Your task to perform on an android device: Show the shopping cart on amazon. Image 0: 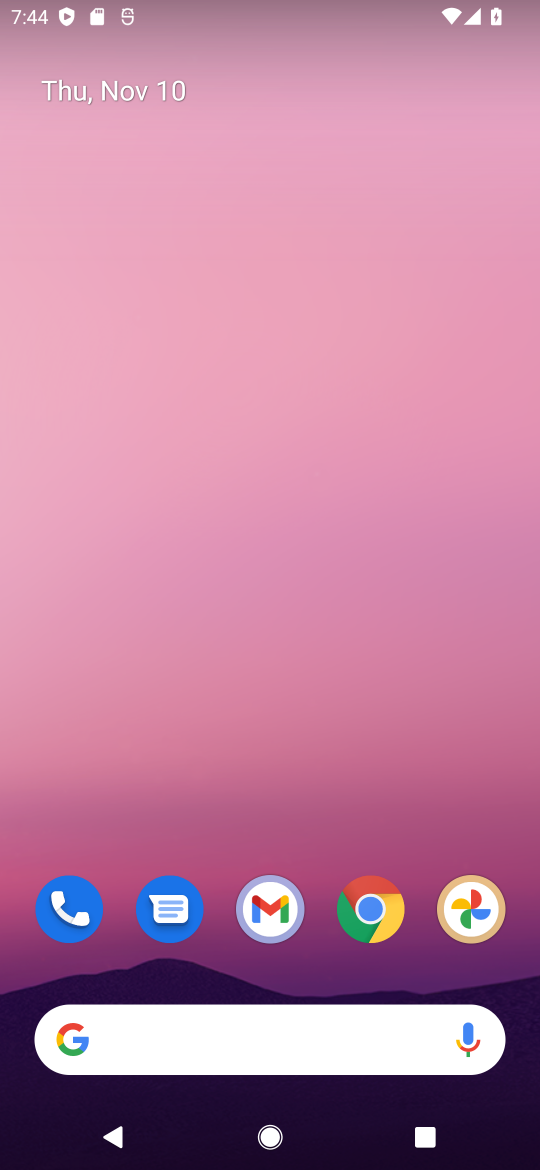
Step 0: drag from (149, 1011) to (251, 280)
Your task to perform on an android device: Show the shopping cart on amazon. Image 1: 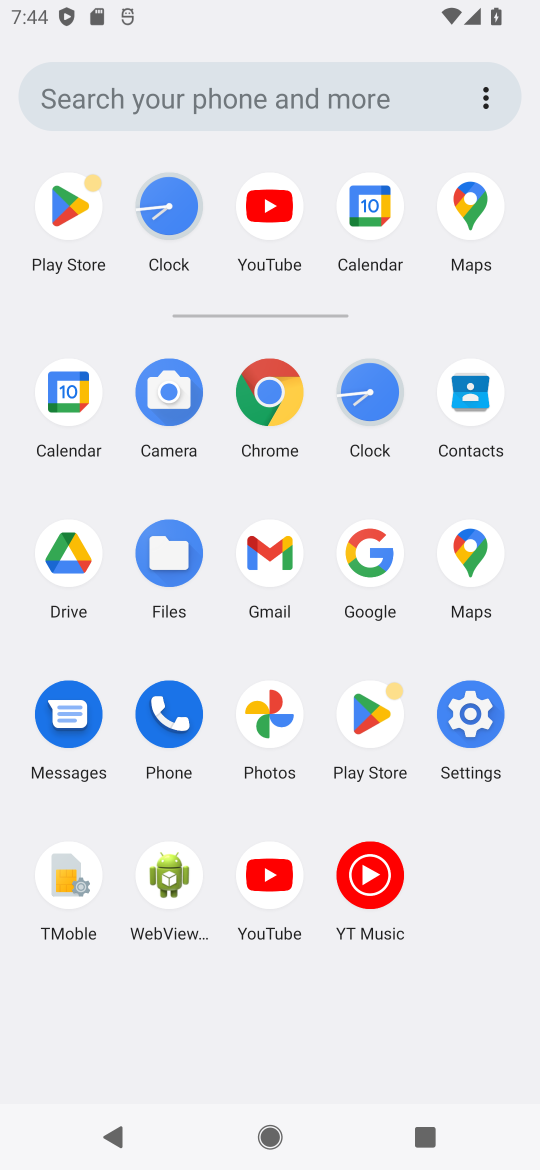
Step 1: click (366, 553)
Your task to perform on an android device: Show the shopping cart on amazon. Image 2: 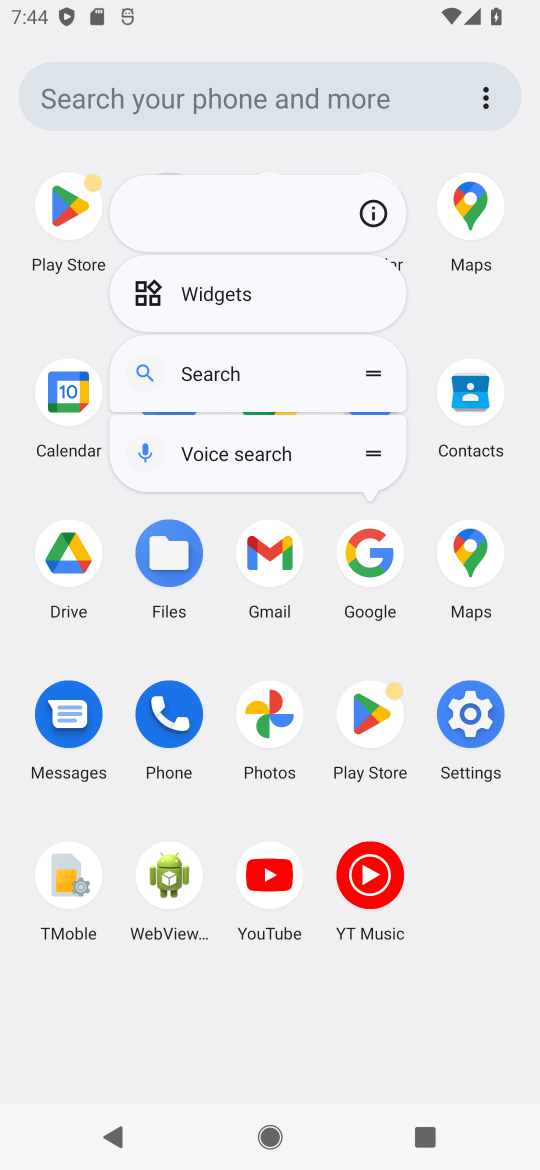
Step 2: click (366, 553)
Your task to perform on an android device: Show the shopping cart on amazon. Image 3: 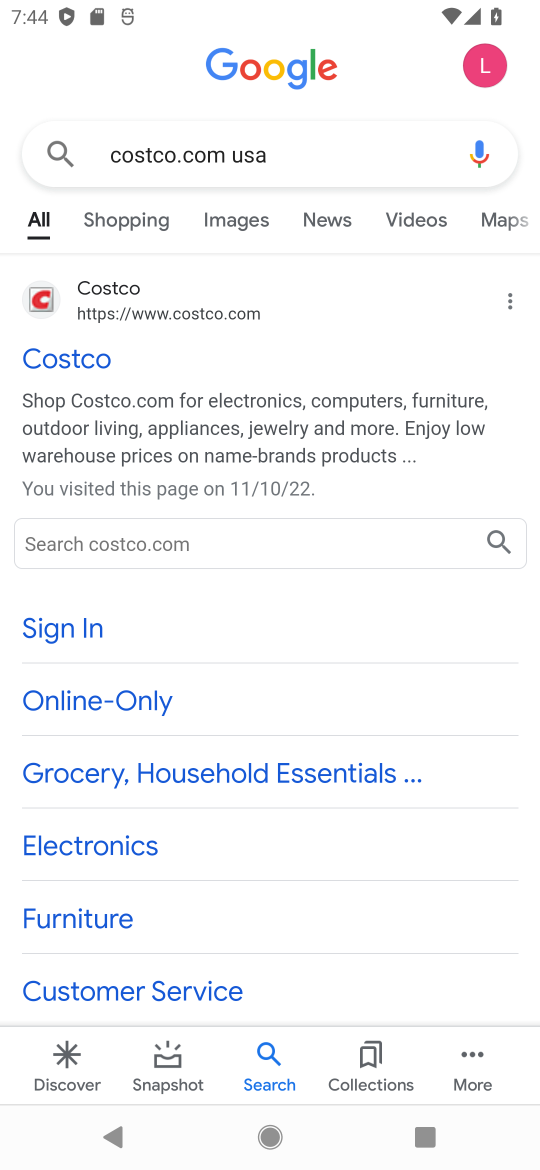
Step 3: click (284, 158)
Your task to perform on an android device: Show the shopping cart on amazon. Image 4: 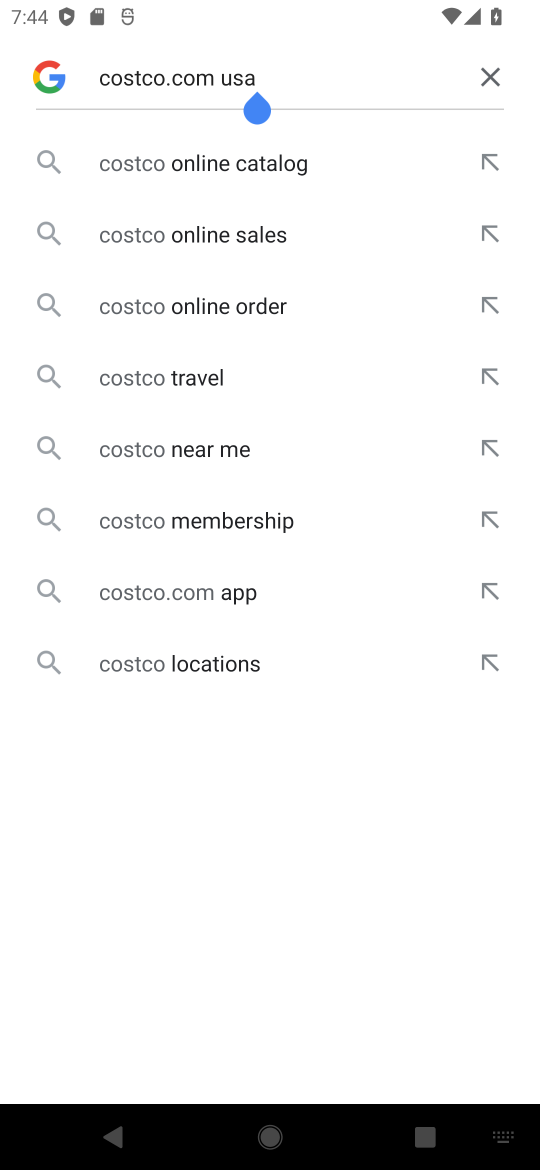
Step 4: click (477, 70)
Your task to perform on an android device: Show the shopping cart on amazon. Image 5: 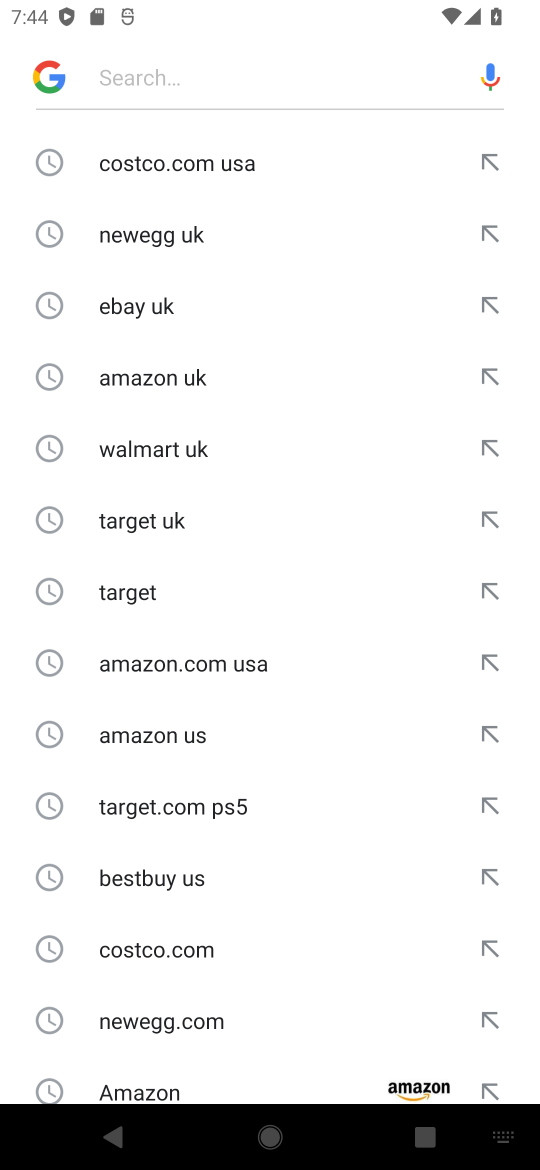
Step 5: click (160, 40)
Your task to perform on an android device: Show the shopping cart on amazon. Image 6: 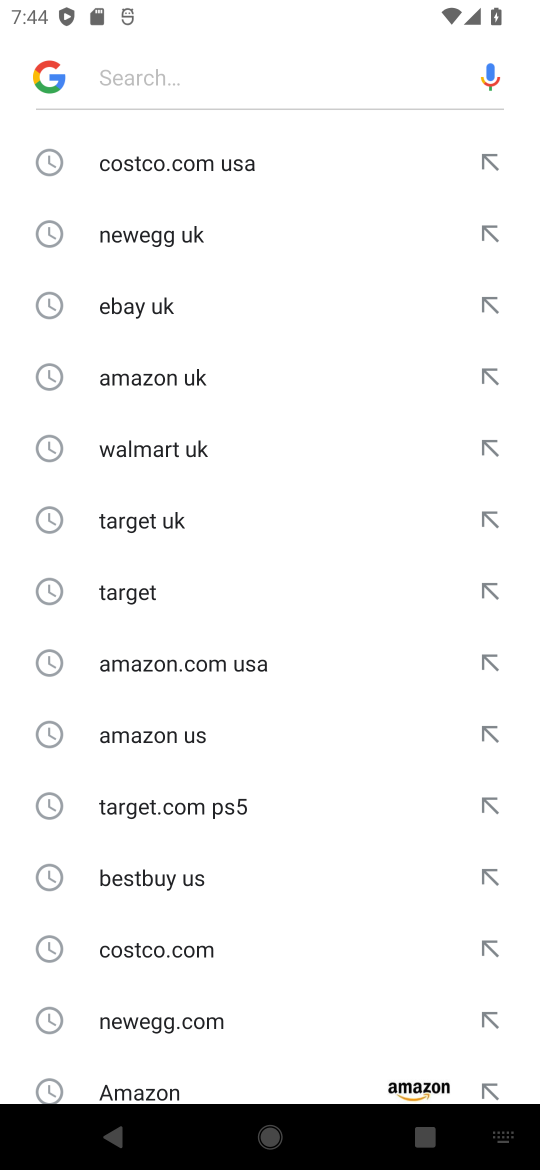
Step 6: click (176, 66)
Your task to perform on an android device: Show the shopping cart on amazon. Image 7: 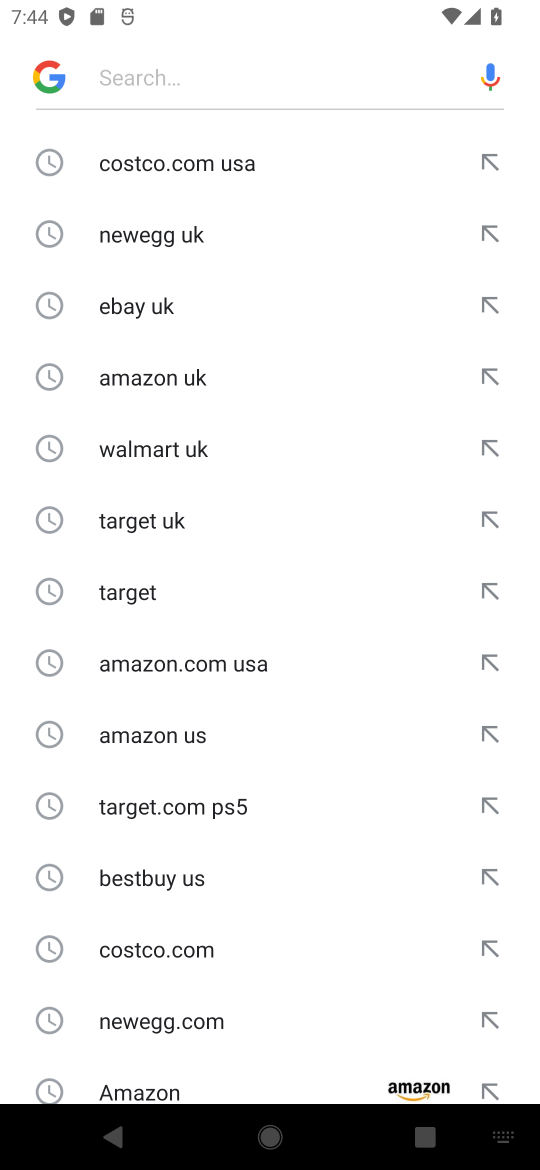
Step 7: type "amazon "
Your task to perform on an android device: Show the shopping cart on amazon. Image 8: 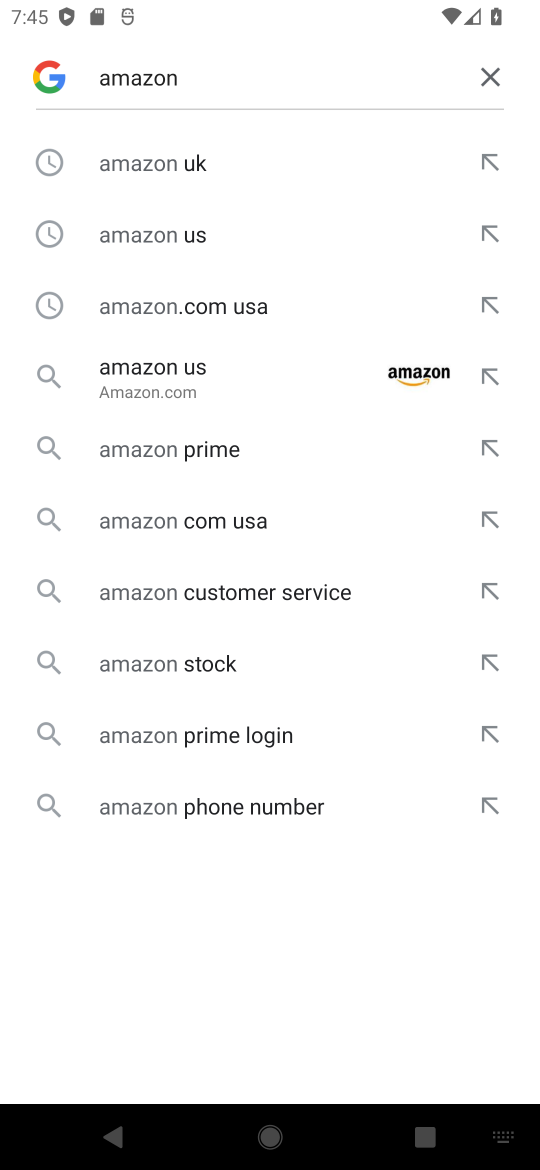
Step 8: click (152, 172)
Your task to perform on an android device: Show the shopping cart on amazon. Image 9: 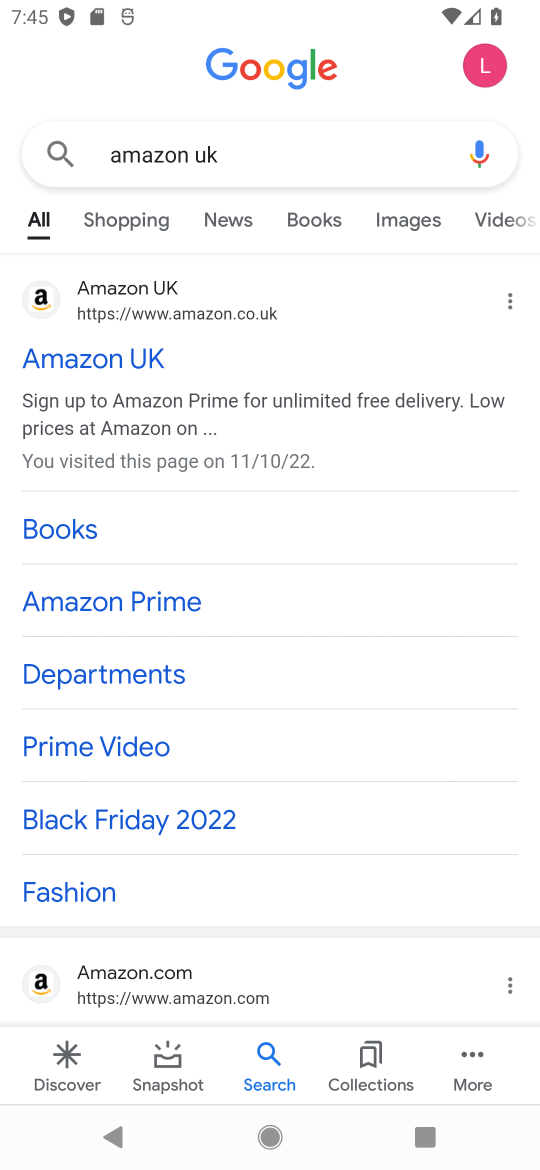
Step 9: click (37, 283)
Your task to perform on an android device: Show the shopping cart on amazon. Image 10: 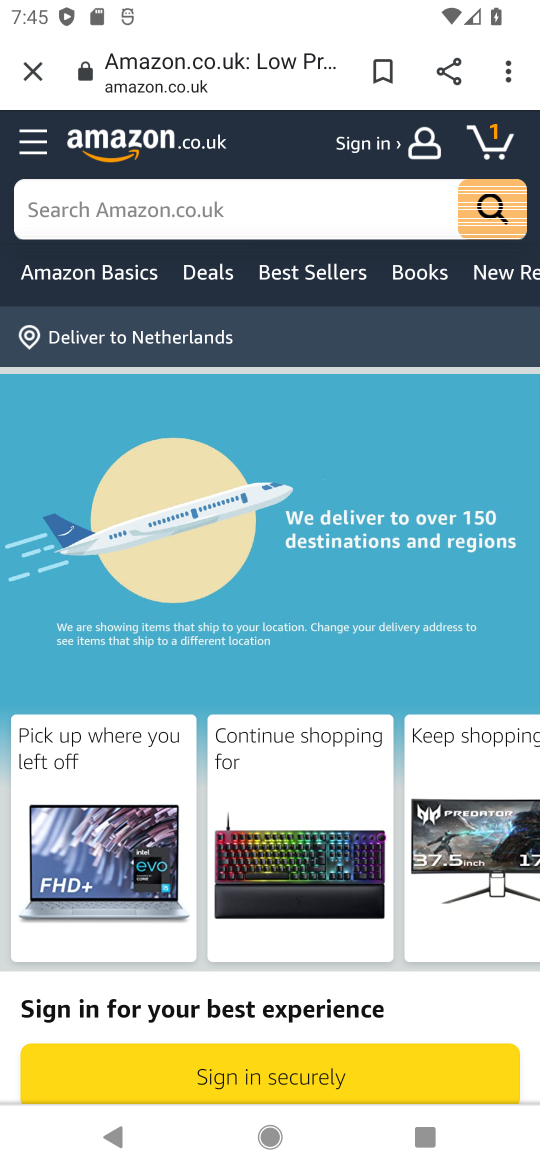
Step 10: click (482, 132)
Your task to perform on an android device: Show the shopping cart on amazon. Image 11: 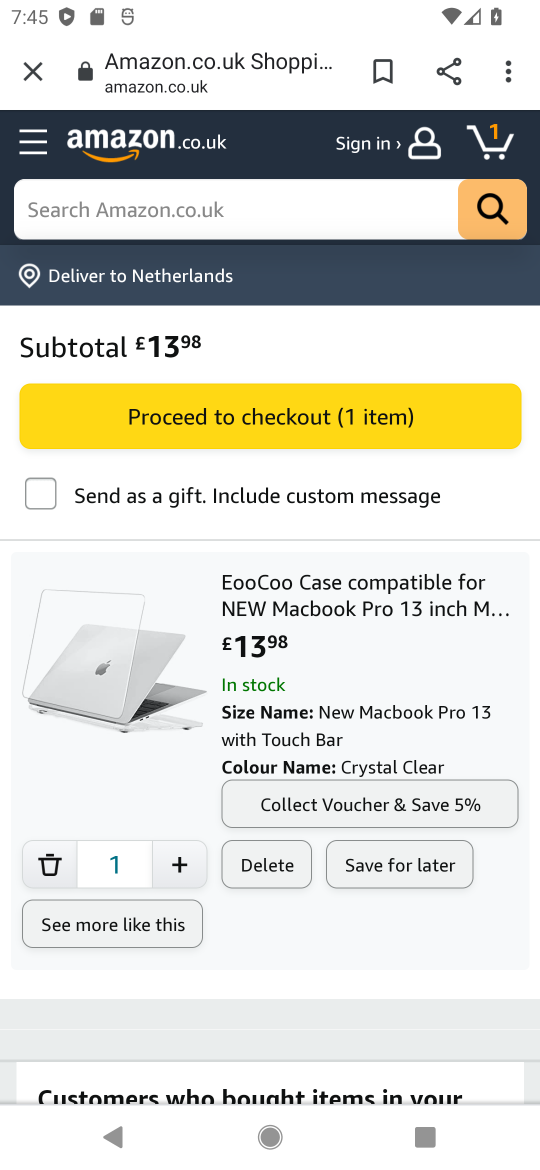
Step 11: task complete